Your task to perform on an android device: Find coffee shops on Maps Image 0: 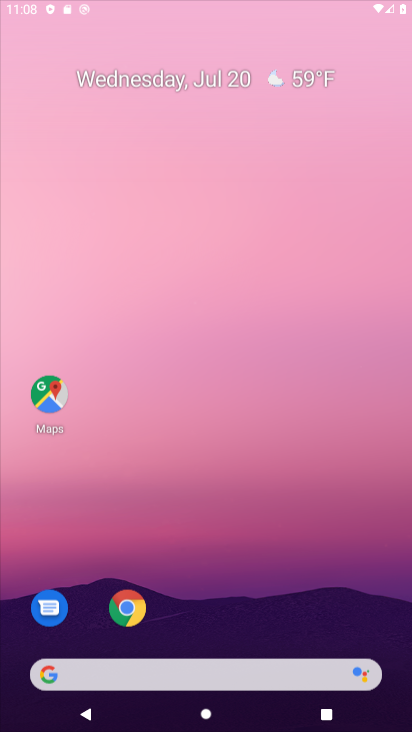
Step 0: click (325, 6)
Your task to perform on an android device: Find coffee shops on Maps Image 1: 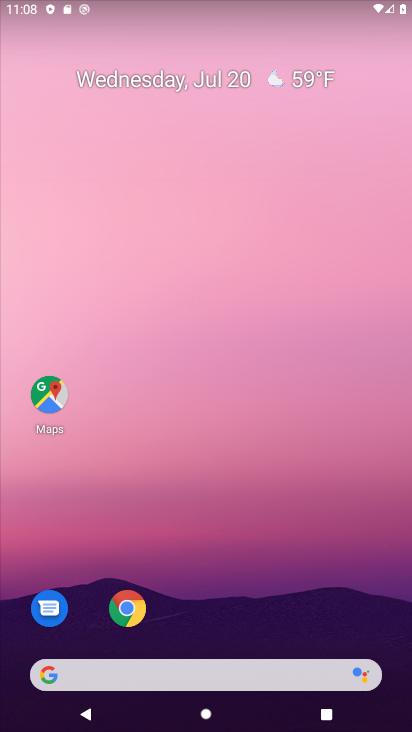
Step 1: drag from (247, 365) to (246, 0)
Your task to perform on an android device: Find coffee shops on Maps Image 2: 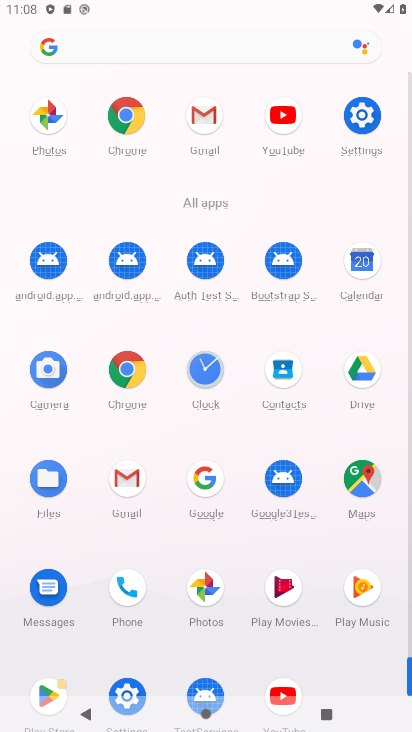
Step 2: click (350, 469)
Your task to perform on an android device: Find coffee shops on Maps Image 3: 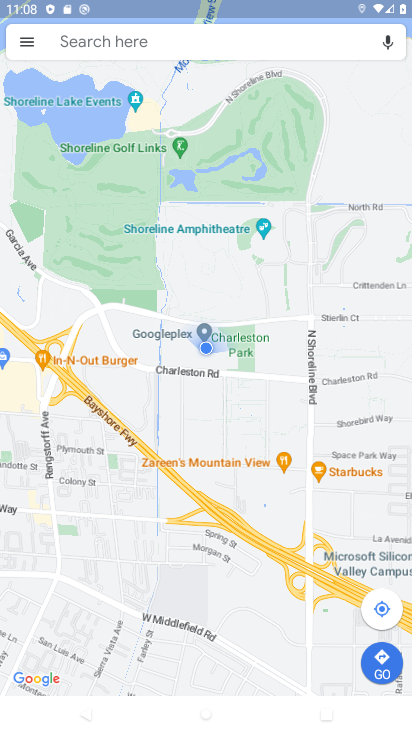
Step 3: click (97, 41)
Your task to perform on an android device: Find coffee shops on Maps Image 4: 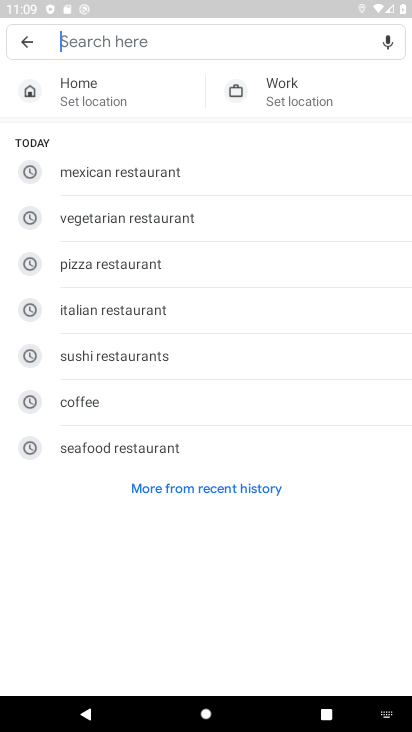
Step 4: click (117, 395)
Your task to perform on an android device: Find coffee shops on Maps Image 5: 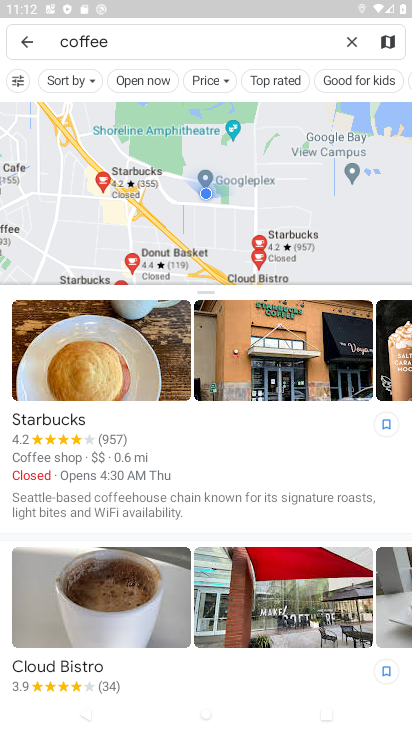
Step 5: task complete